Your task to perform on an android device: set the stopwatch Image 0: 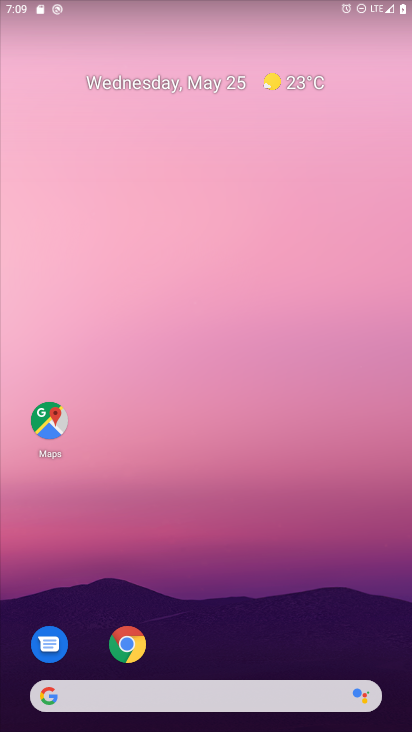
Step 0: drag from (321, 639) to (332, 49)
Your task to perform on an android device: set the stopwatch Image 1: 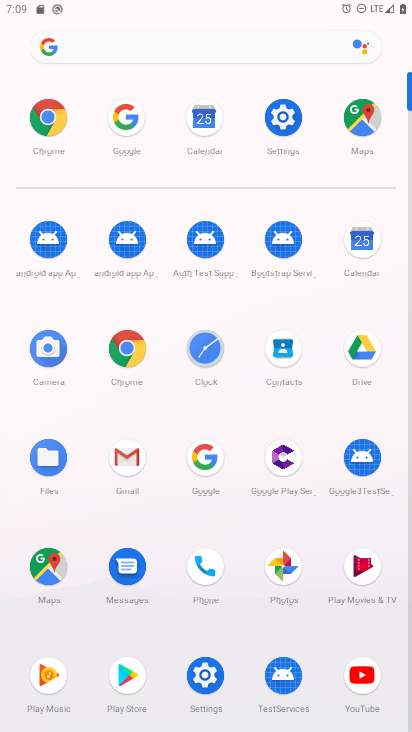
Step 1: click (190, 325)
Your task to perform on an android device: set the stopwatch Image 2: 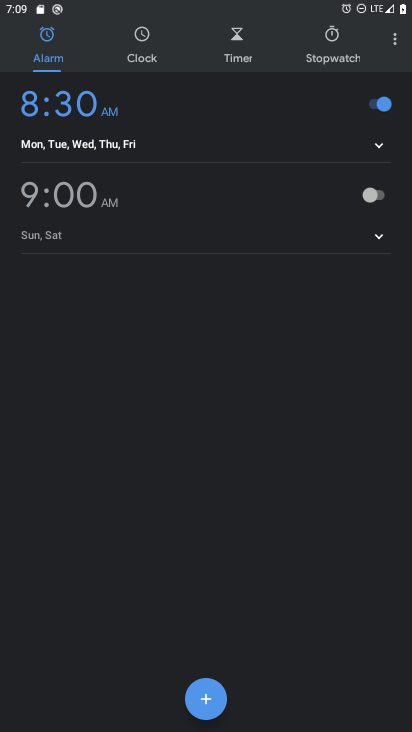
Step 2: click (332, 37)
Your task to perform on an android device: set the stopwatch Image 3: 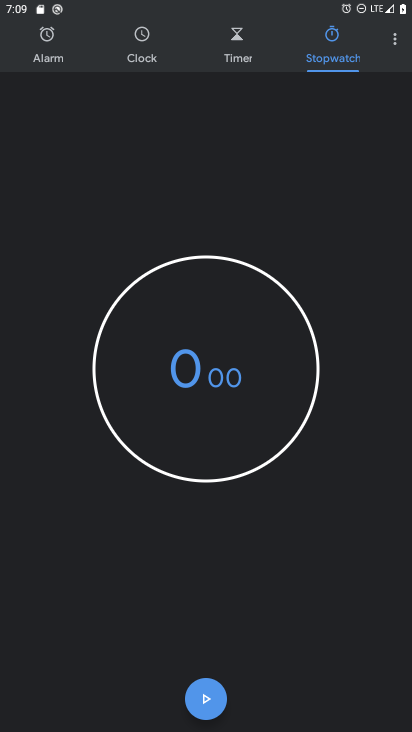
Step 3: click (201, 698)
Your task to perform on an android device: set the stopwatch Image 4: 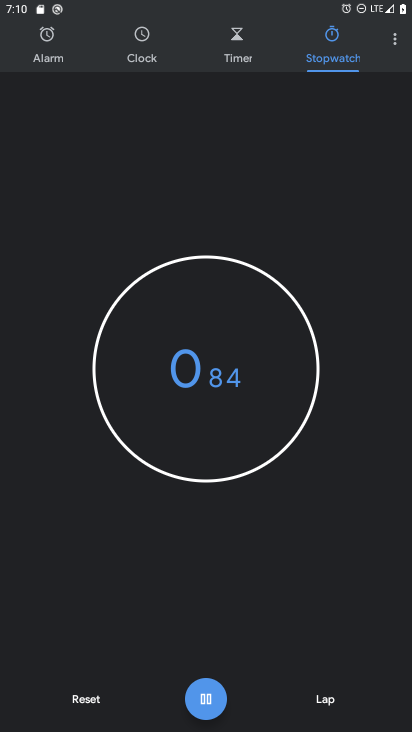
Step 4: click (201, 698)
Your task to perform on an android device: set the stopwatch Image 5: 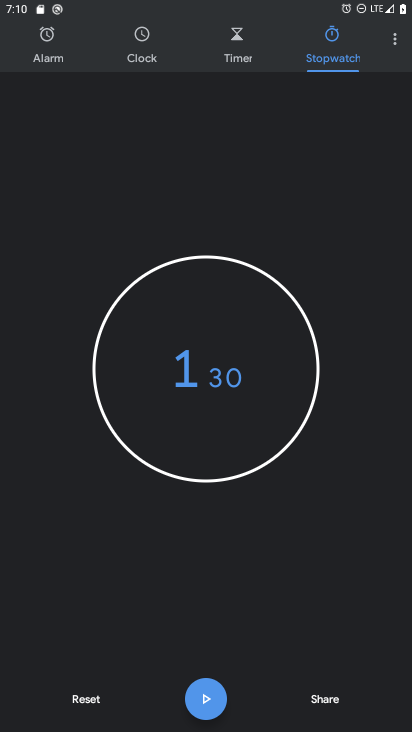
Step 5: task complete